Your task to perform on an android device: remove spam from my inbox in the gmail app Image 0: 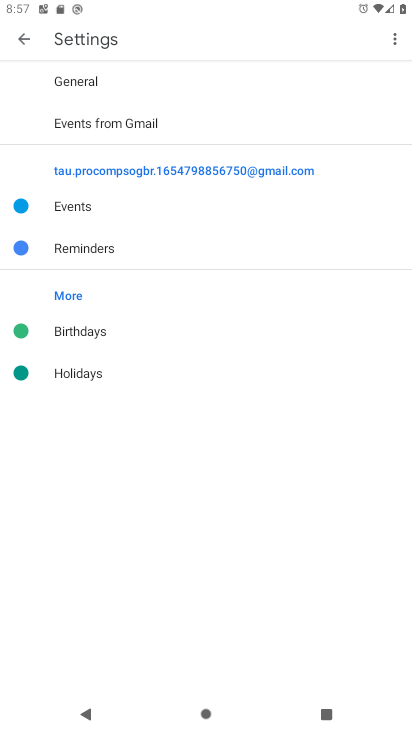
Step 0: press home button
Your task to perform on an android device: remove spam from my inbox in the gmail app Image 1: 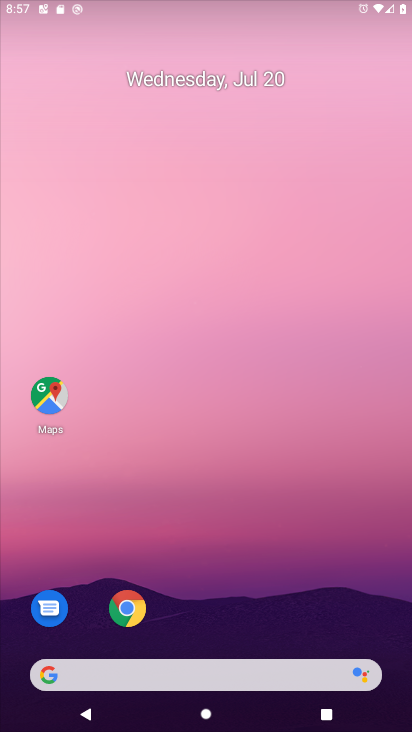
Step 1: drag from (245, 566) to (234, 169)
Your task to perform on an android device: remove spam from my inbox in the gmail app Image 2: 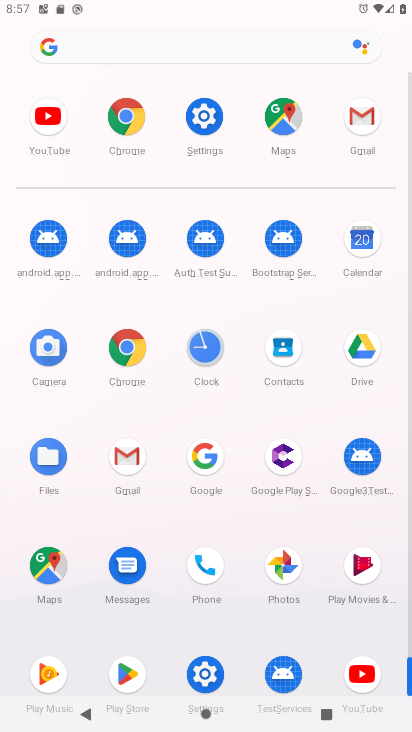
Step 2: click (371, 121)
Your task to perform on an android device: remove spam from my inbox in the gmail app Image 3: 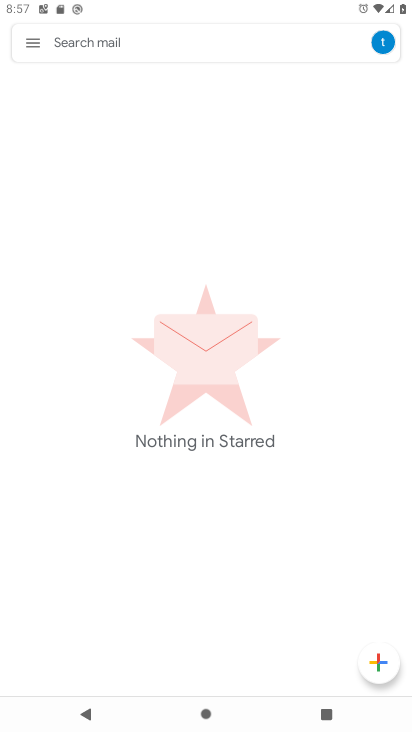
Step 3: click (24, 28)
Your task to perform on an android device: remove spam from my inbox in the gmail app Image 4: 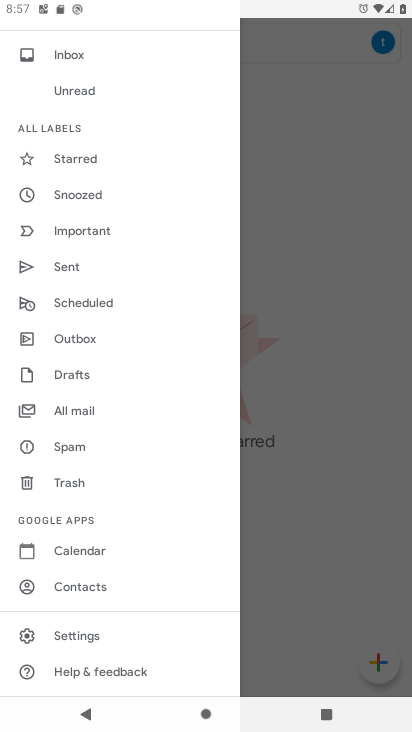
Step 4: click (77, 442)
Your task to perform on an android device: remove spam from my inbox in the gmail app Image 5: 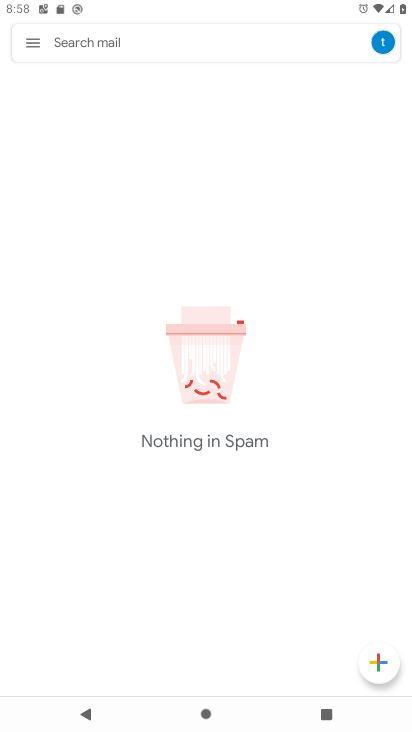
Step 5: task complete